Your task to perform on an android device: toggle data saver in the chrome app Image 0: 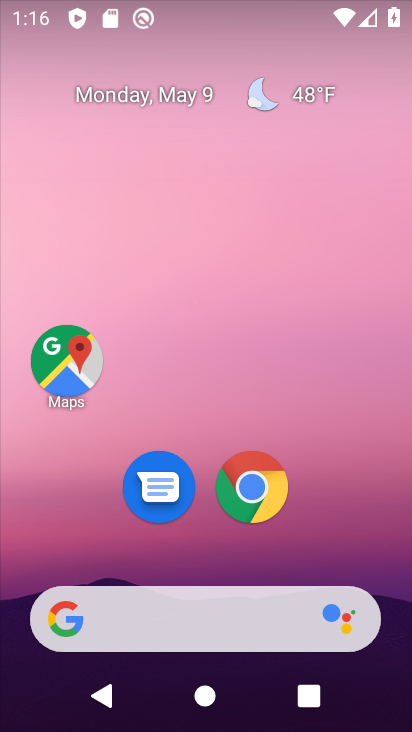
Step 0: click (234, 488)
Your task to perform on an android device: toggle data saver in the chrome app Image 1: 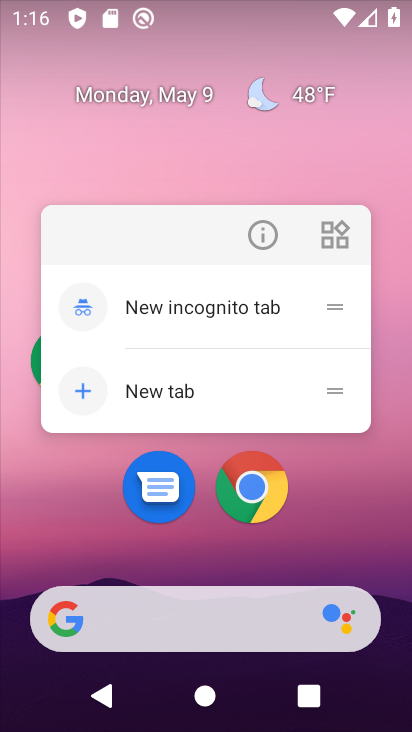
Step 1: click (245, 491)
Your task to perform on an android device: toggle data saver in the chrome app Image 2: 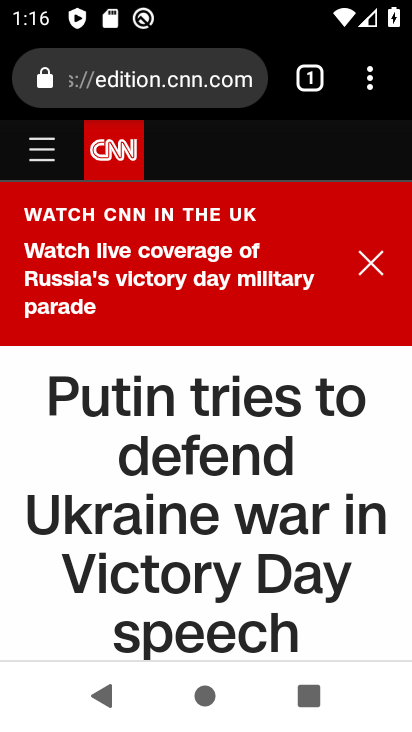
Step 2: click (363, 77)
Your task to perform on an android device: toggle data saver in the chrome app Image 3: 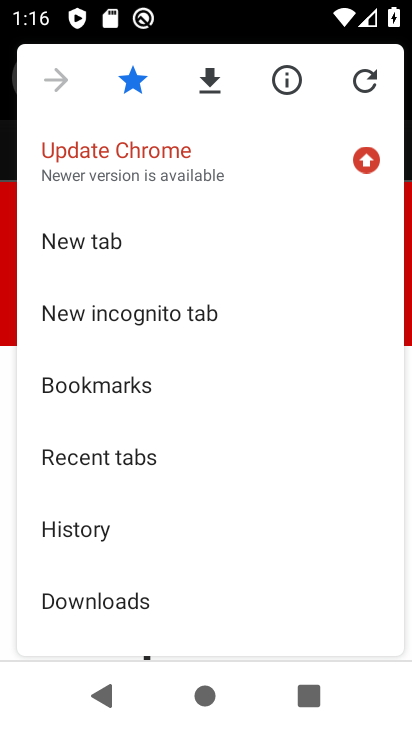
Step 3: drag from (137, 615) to (149, 252)
Your task to perform on an android device: toggle data saver in the chrome app Image 4: 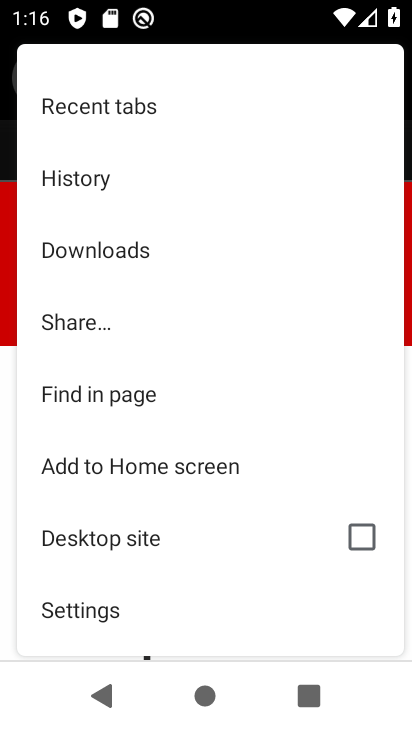
Step 4: click (103, 616)
Your task to perform on an android device: toggle data saver in the chrome app Image 5: 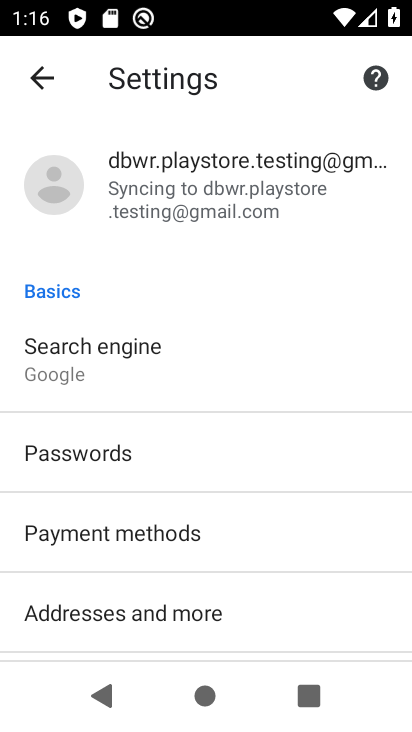
Step 5: drag from (107, 632) to (112, 290)
Your task to perform on an android device: toggle data saver in the chrome app Image 6: 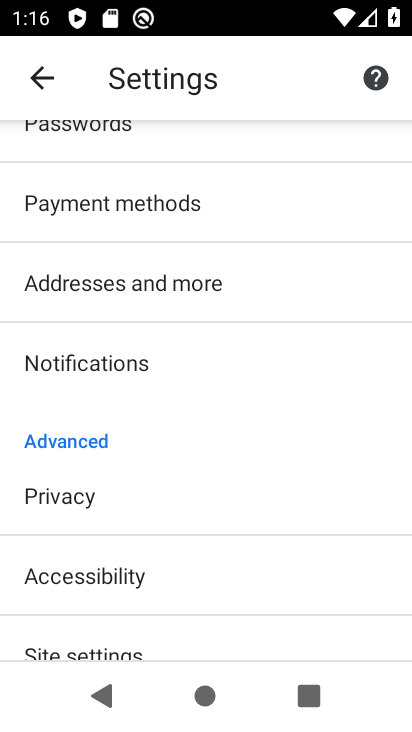
Step 6: drag from (87, 639) to (86, 228)
Your task to perform on an android device: toggle data saver in the chrome app Image 7: 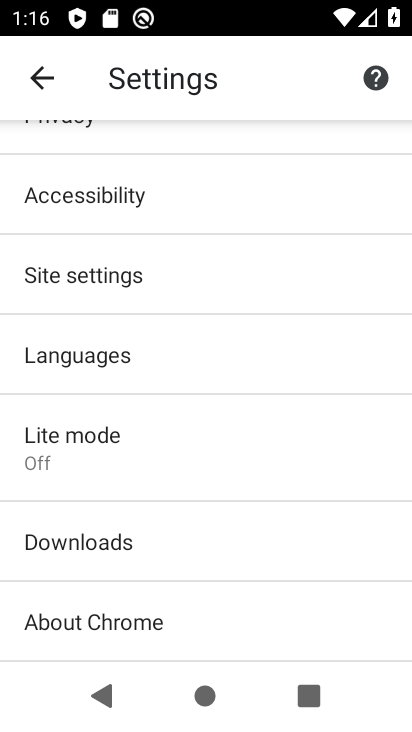
Step 7: click (80, 434)
Your task to perform on an android device: toggle data saver in the chrome app Image 8: 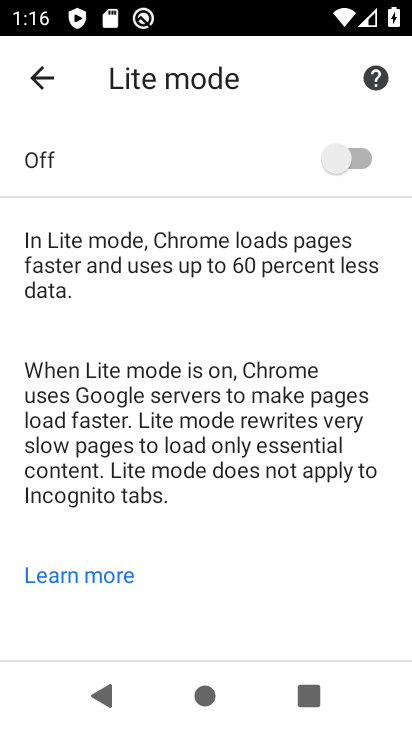
Step 8: click (354, 157)
Your task to perform on an android device: toggle data saver in the chrome app Image 9: 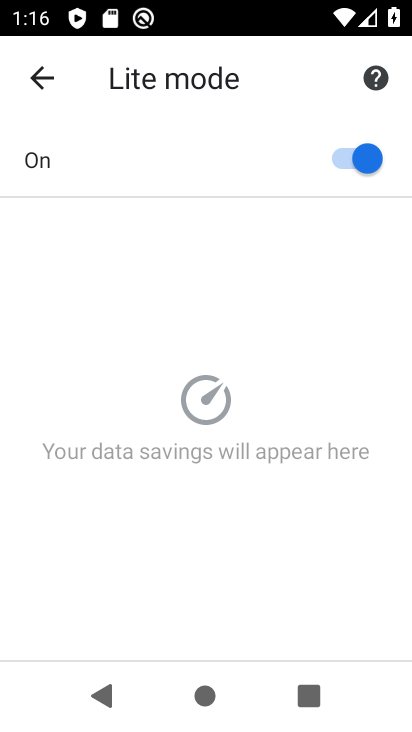
Step 9: task complete